Your task to perform on an android device: add a contact Image 0: 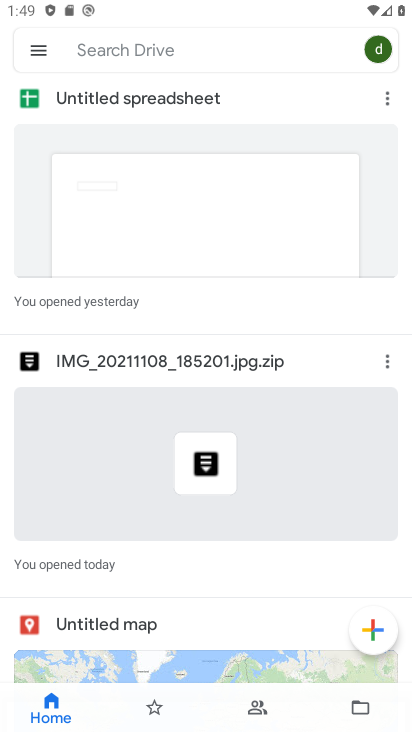
Step 0: press home button
Your task to perform on an android device: add a contact Image 1: 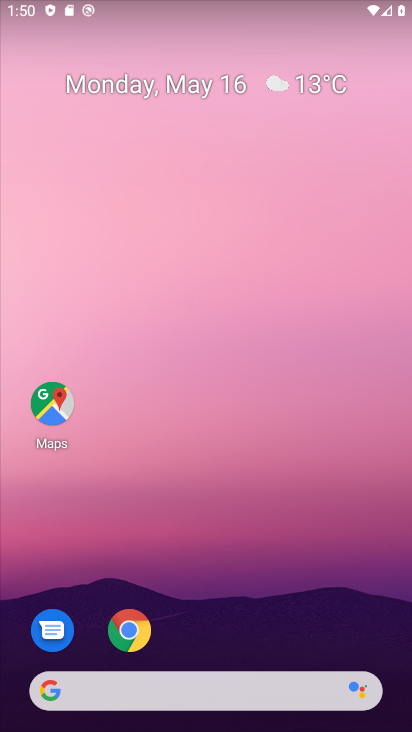
Step 1: drag from (261, 555) to (273, 104)
Your task to perform on an android device: add a contact Image 2: 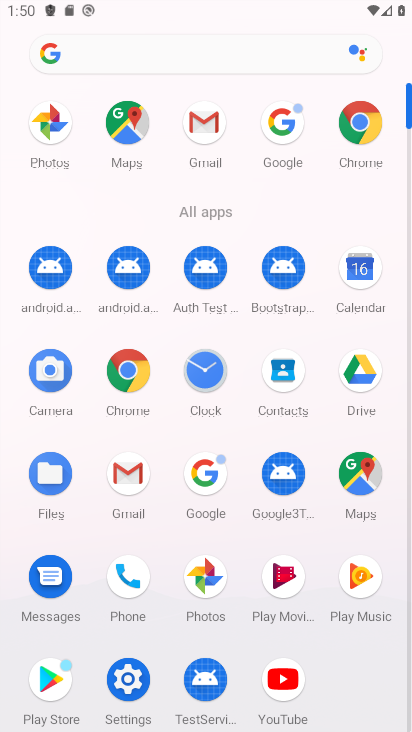
Step 2: click (288, 375)
Your task to perform on an android device: add a contact Image 3: 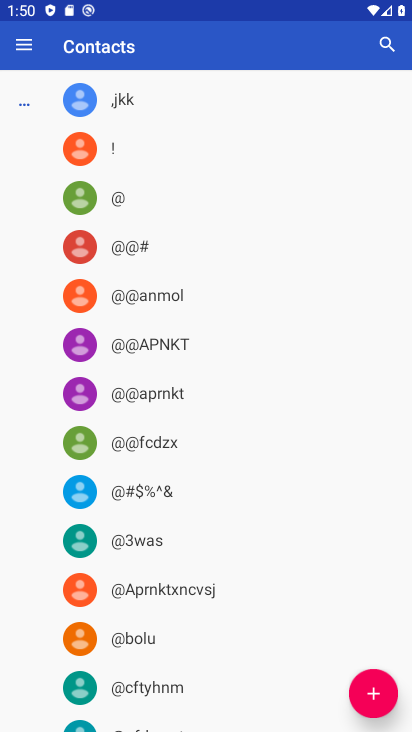
Step 3: drag from (312, 622) to (297, 208)
Your task to perform on an android device: add a contact Image 4: 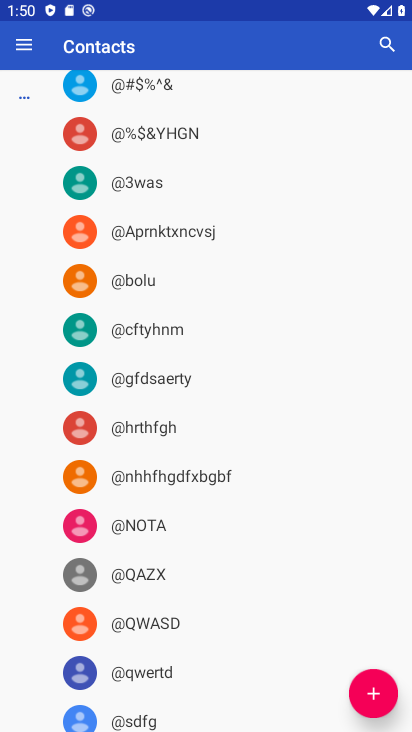
Step 4: click (364, 681)
Your task to perform on an android device: add a contact Image 5: 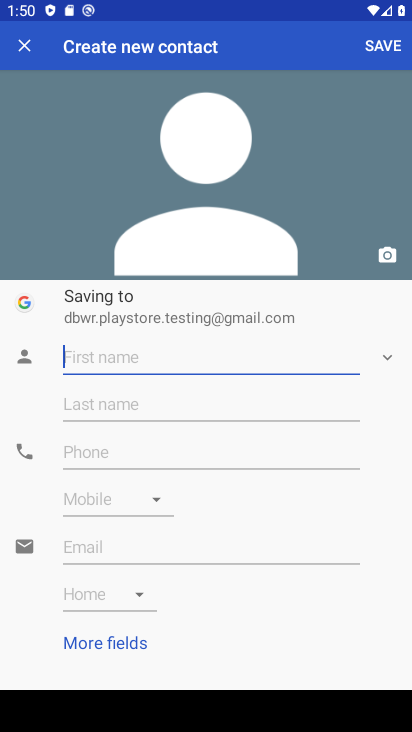
Step 5: click (182, 348)
Your task to perform on an android device: add a contact Image 6: 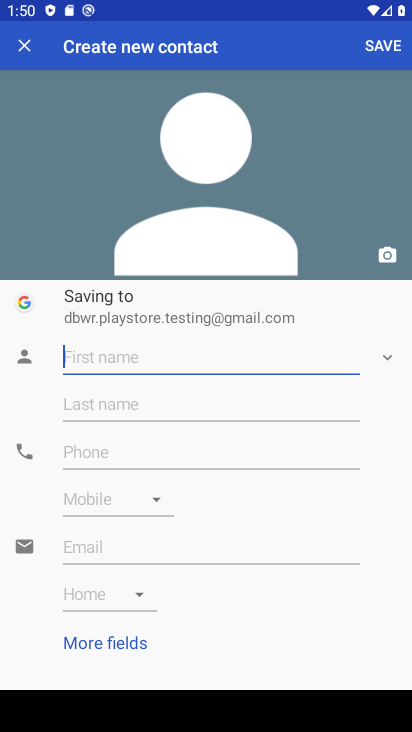
Step 6: type "lata"
Your task to perform on an android device: add a contact Image 7: 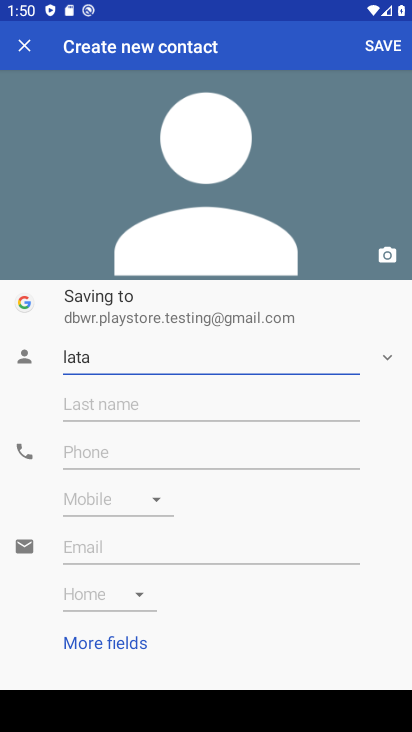
Step 7: click (138, 462)
Your task to perform on an android device: add a contact Image 8: 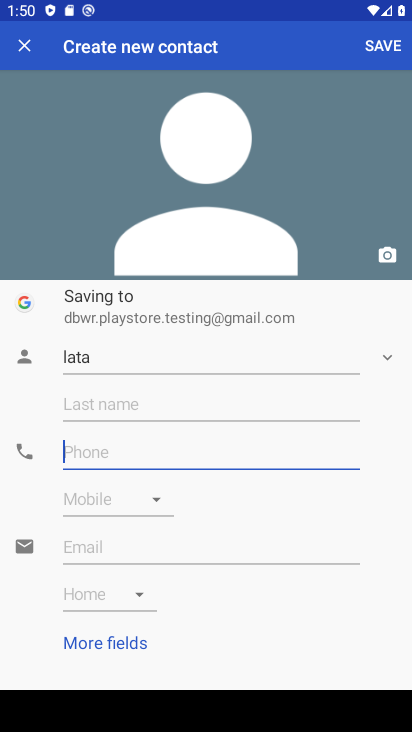
Step 8: type "7687678787"
Your task to perform on an android device: add a contact Image 9: 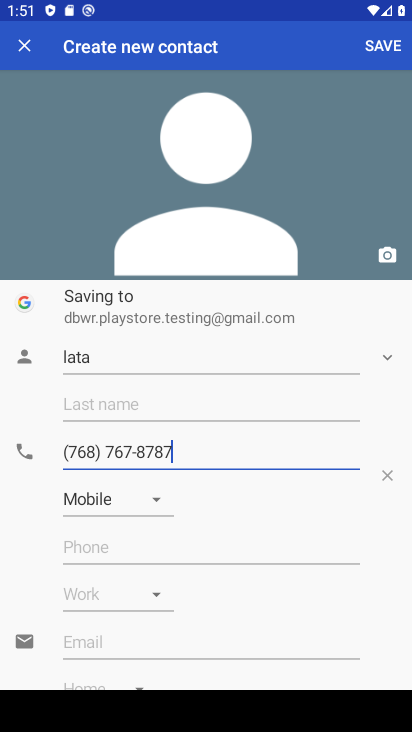
Step 9: task complete